Your task to perform on an android device: add a label to a message in the gmail app Image 0: 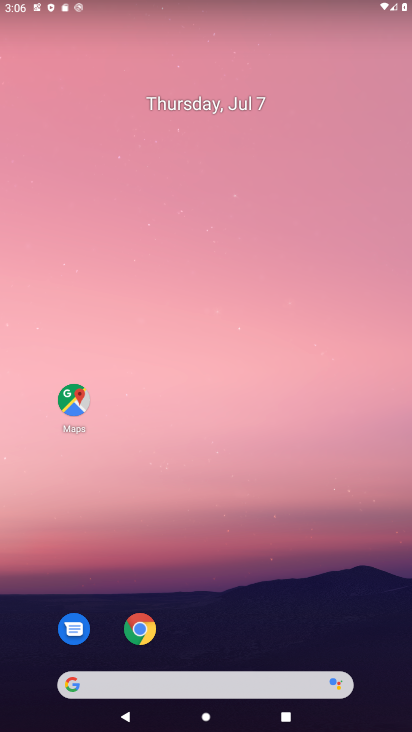
Step 0: drag from (188, 689) to (188, 110)
Your task to perform on an android device: add a label to a message in the gmail app Image 1: 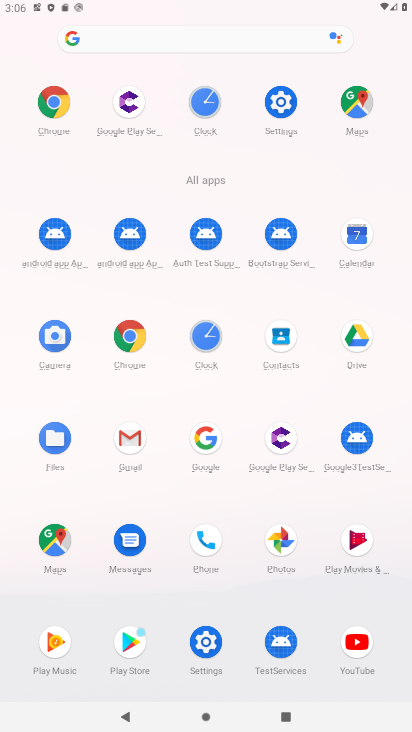
Step 1: click (140, 431)
Your task to perform on an android device: add a label to a message in the gmail app Image 2: 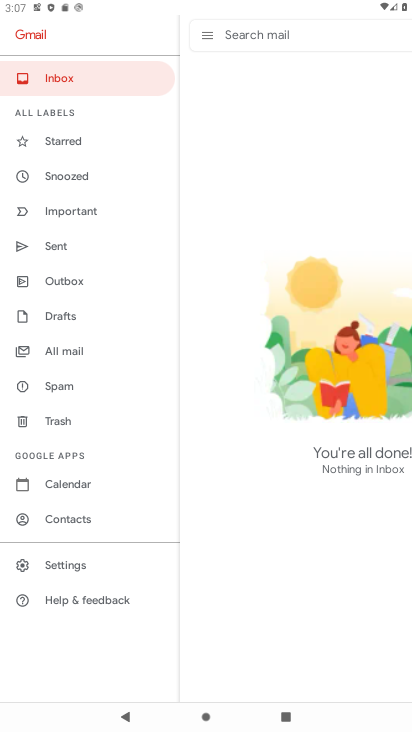
Step 2: click (79, 559)
Your task to perform on an android device: add a label to a message in the gmail app Image 3: 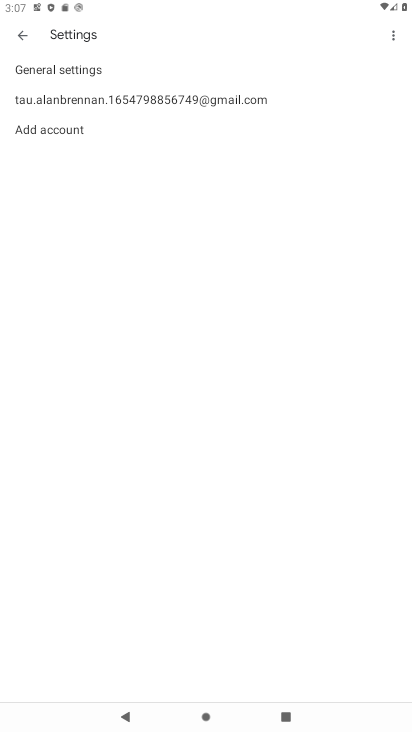
Step 3: click (129, 100)
Your task to perform on an android device: add a label to a message in the gmail app Image 4: 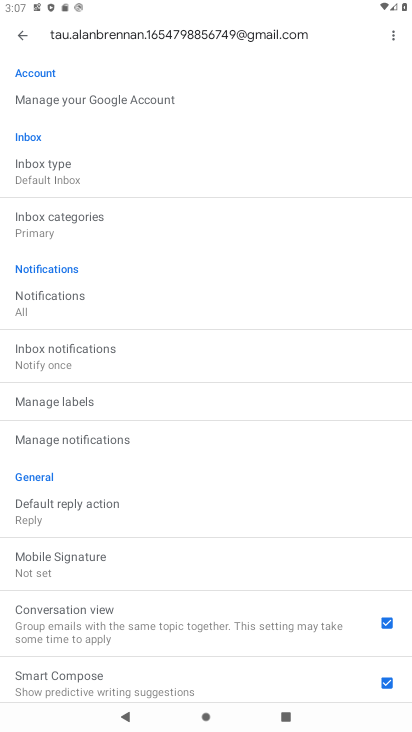
Step 4: click (106, 387)
Your task to perform on an android device: add a label to a message in the gmail app Image 5: 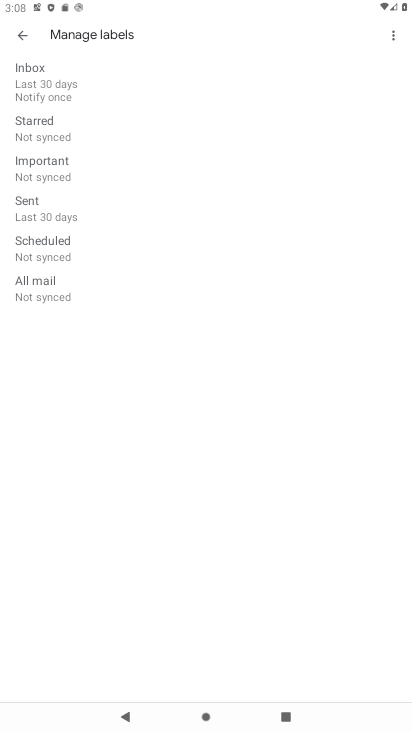
Step 5: click (19, 31)
Your task to perform on an android device: add a label to a message in the gmail app Image 6: 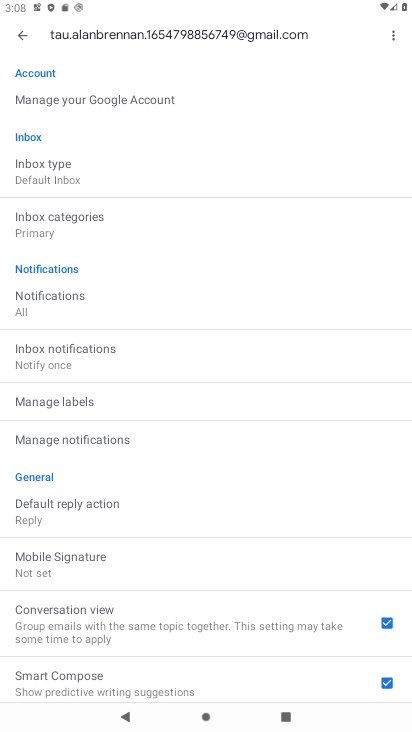
Step 6: task complete